Your task to perform on an android device: Is it going to rain tomorrow? Image 0: 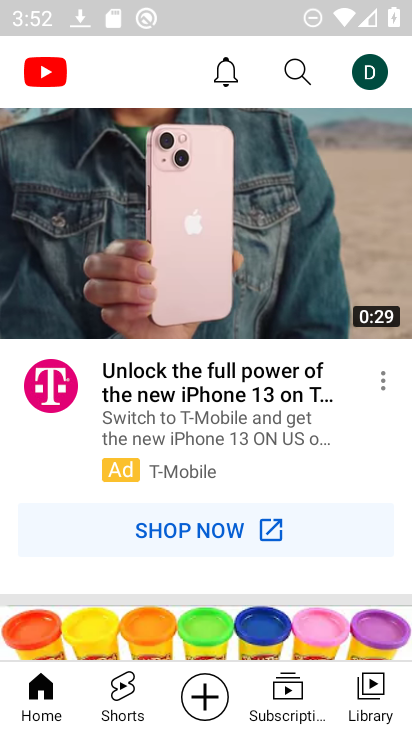
Step 0: press home button
Your task to perform on an android device: Is it going to rain tomorrow? Image 1: 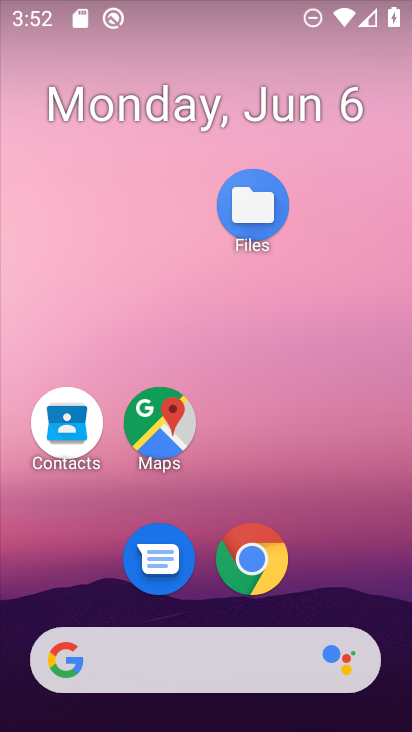
Step 1: drag from (242, 624) to (291, 60)
Your task to perform on an android device: Is it going to rain tomorrow? Image 2: 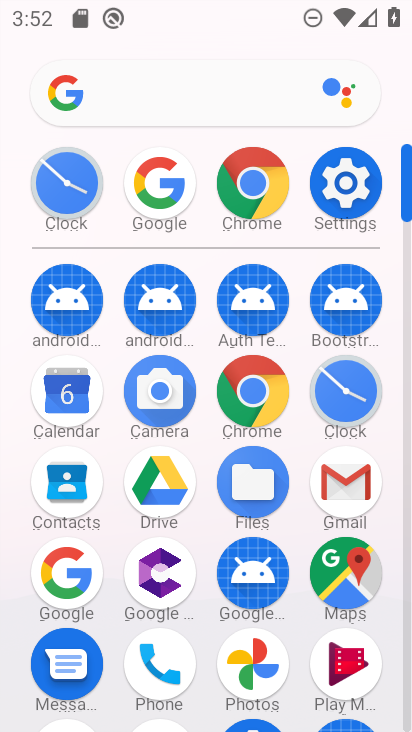
Step 2: click (55, 576)
Your task to perform on an android device: Is it going to rain tomorrow? Image 3: 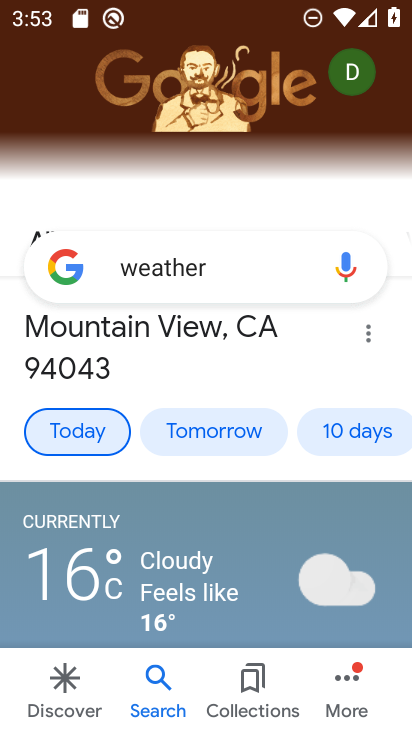
Step 3: click (233, 437)
Your task to perform on an android device: Is it going to rain tomorrow? Image 4: 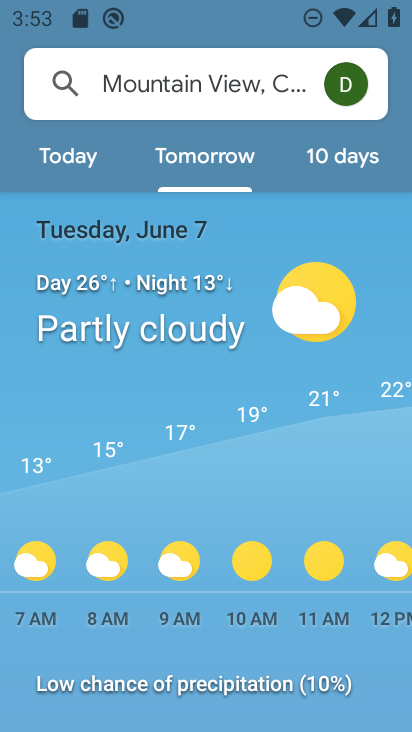
Step 4: task complete